Your task to perform on an android device: Show the shopping cart on bestbuy. Search for panasonic triple a on bestbuy, select the first entry, add it to the cart, then select checkout. Image 0: 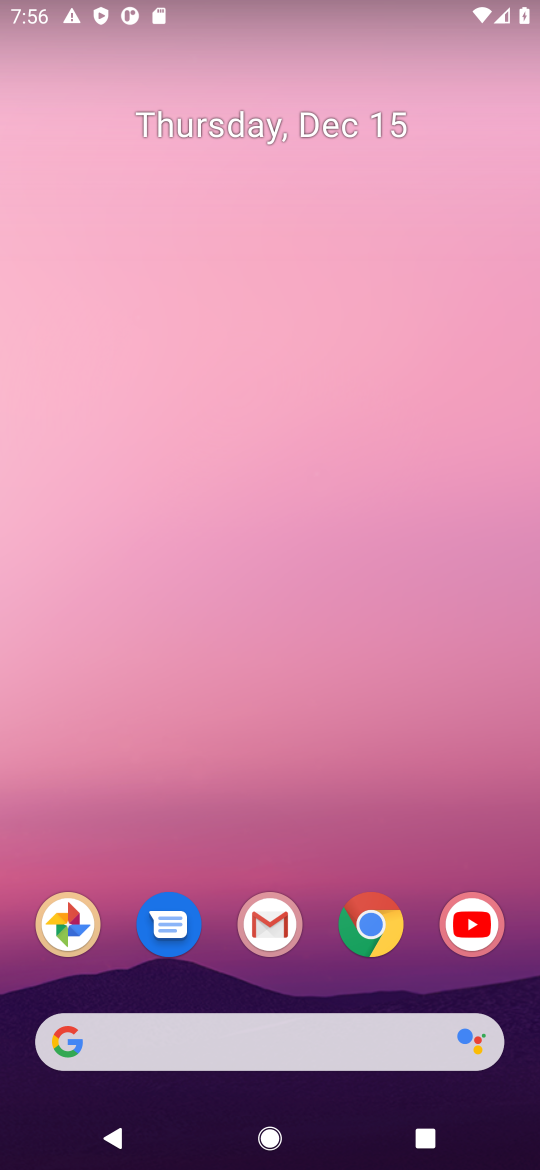
Step 0: click (376, 938)
Your task to perform on an android device: Show the shopping cart on bestbuy. Search for panasonic triple a on bestbuy, select the first entry, add it to the cart, then select checkout. Image 1: 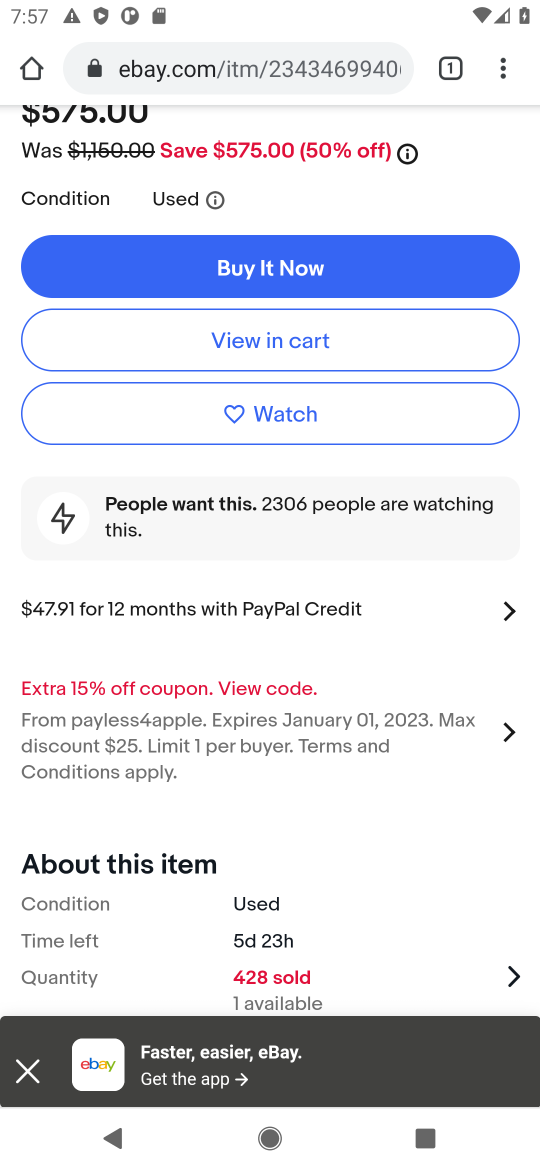
Step 1: click (318, 76)
Your task to perform on an android device: Show the shopping cart on bestbuy. Search for panasonic triple a on bestbuy, select the first entry, add it to the cart, then select checkout. Image 2: 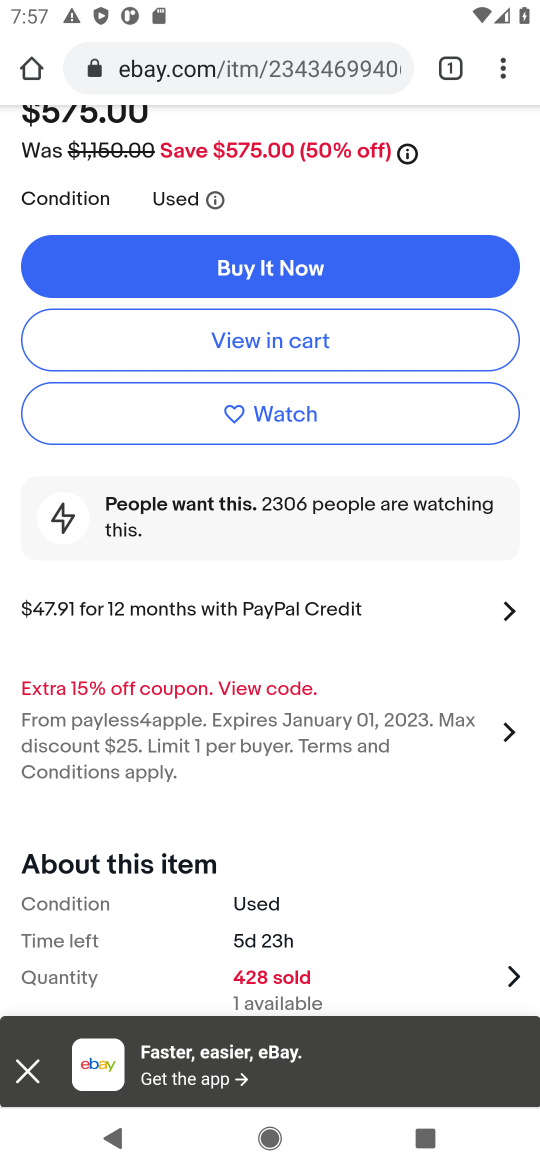
Step 2: click (318, 76)
Your task to perform on an android device: Show the shopping cart on bestbuy. Search for panasonic triple a on bestbuy, select the first entry, add it to the cart, then select checkout. Image 3: 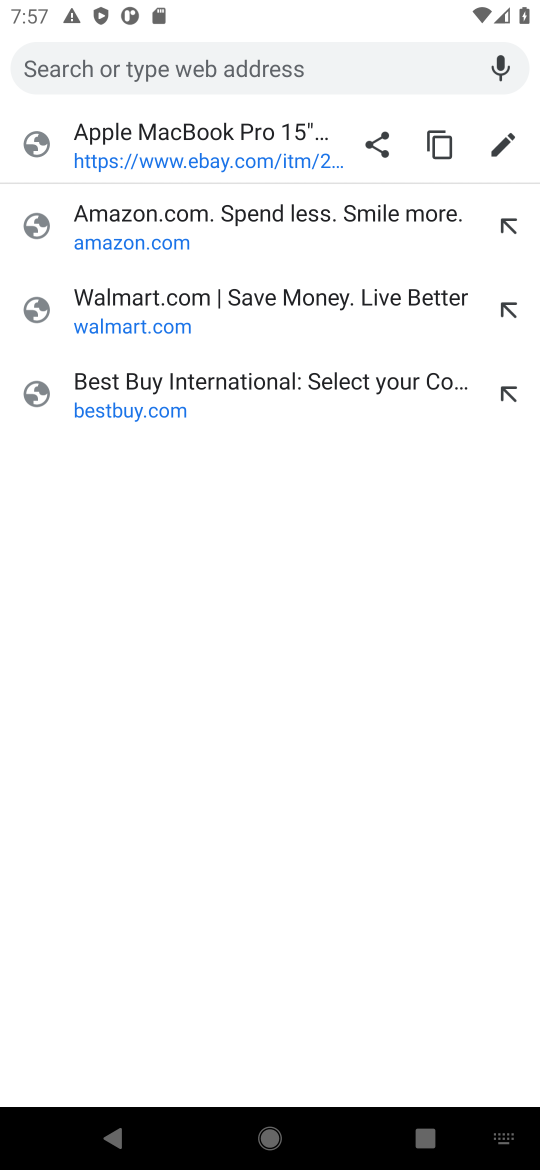
Step 3: click (174, 417)
Your task to perform on an android device: Show the shopping cart on bestbuy. Search for panasonic triple a on bestbuy, select the first entry, add it to the cart, then select checkout. Image 4: 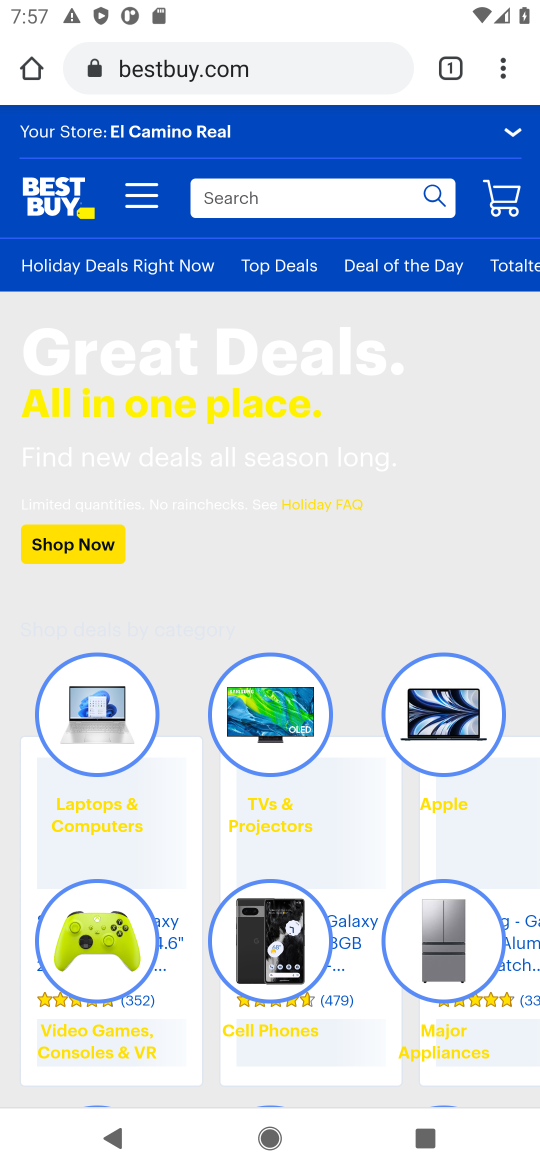
Step 4: click (494, 204)
Your task to perform on an android device: Show the shopping cart on bestbuy. Search for panasonic triple a on bestbuy, select the first entry, add it to the cart, then select checkout. Image 5: 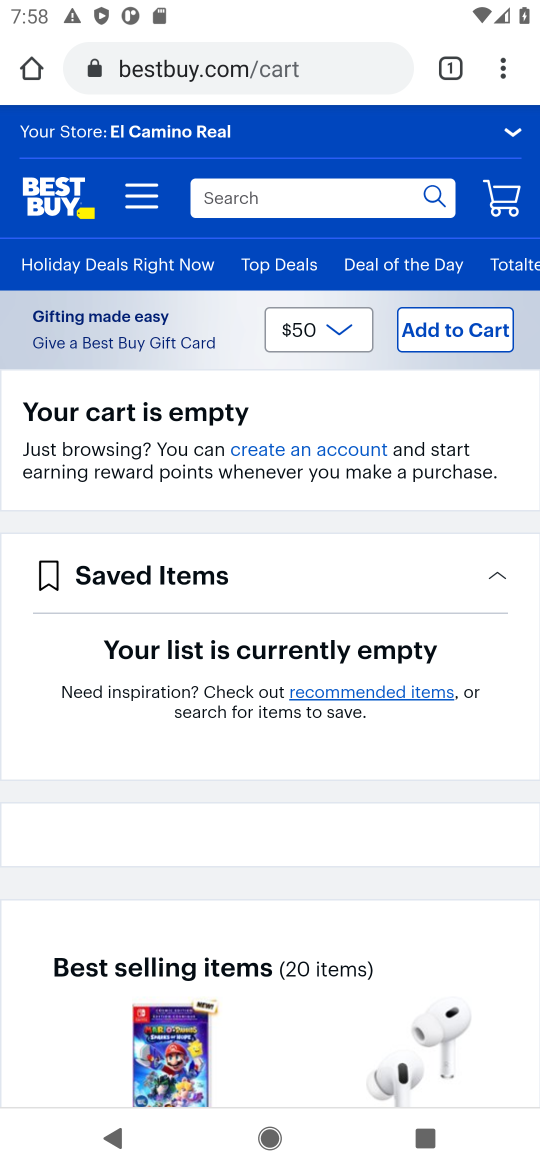
Step 5: click (292, 218)
Your task to perform on an android device: Show the shopping cart on bestbuy. Search for panasonic triple a on bestbuy, select the first entry, add it to the cart, then select checkout. Image 6: 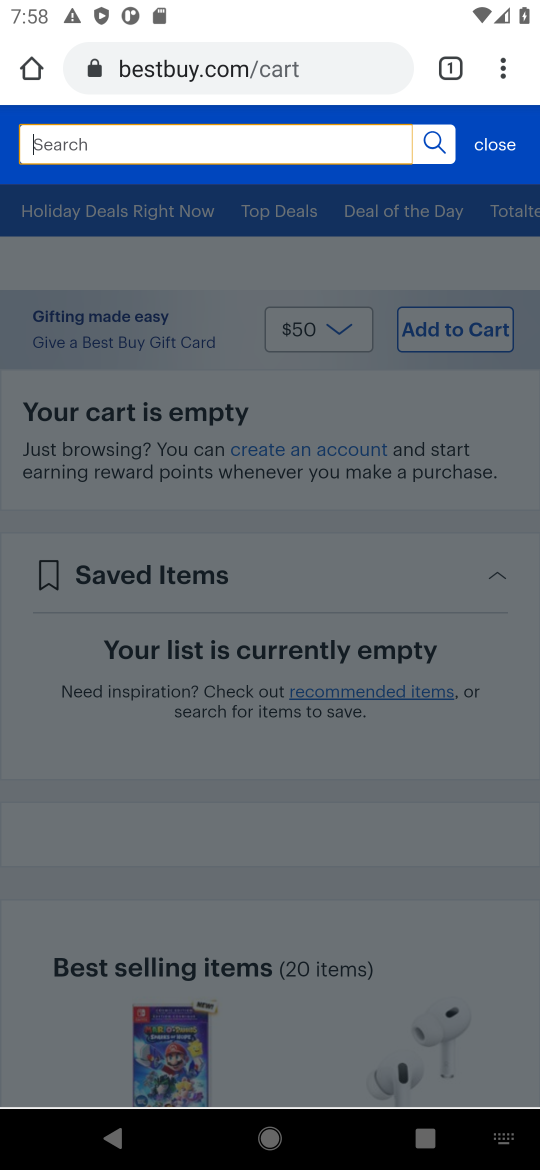
Step 6: click (289, 201)
Your task to perform on an android device: Show the shopping cart on bestbuy. Search for panasonic triple a on bestbuy, select the first entry, add it to the cart, then select checkout. Image 7: 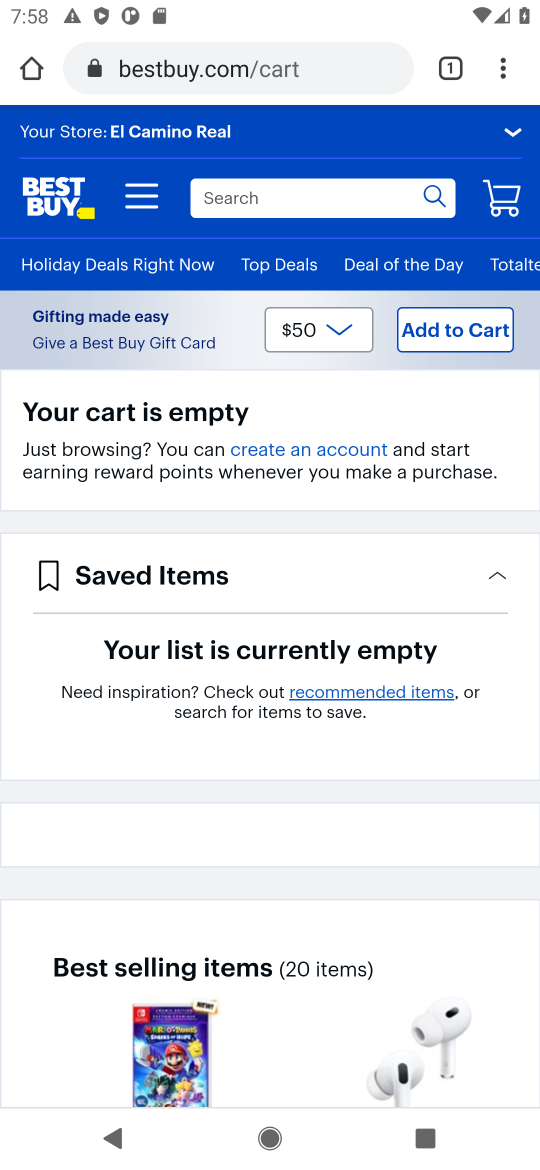
Step 7: click (267, 205)
Your task to perform on an android device: Show the shopping cart on bestbuy. Search for panasonic triple a on bestbuy, select the first entry, add it to the cart, then select checkout. Image 8: 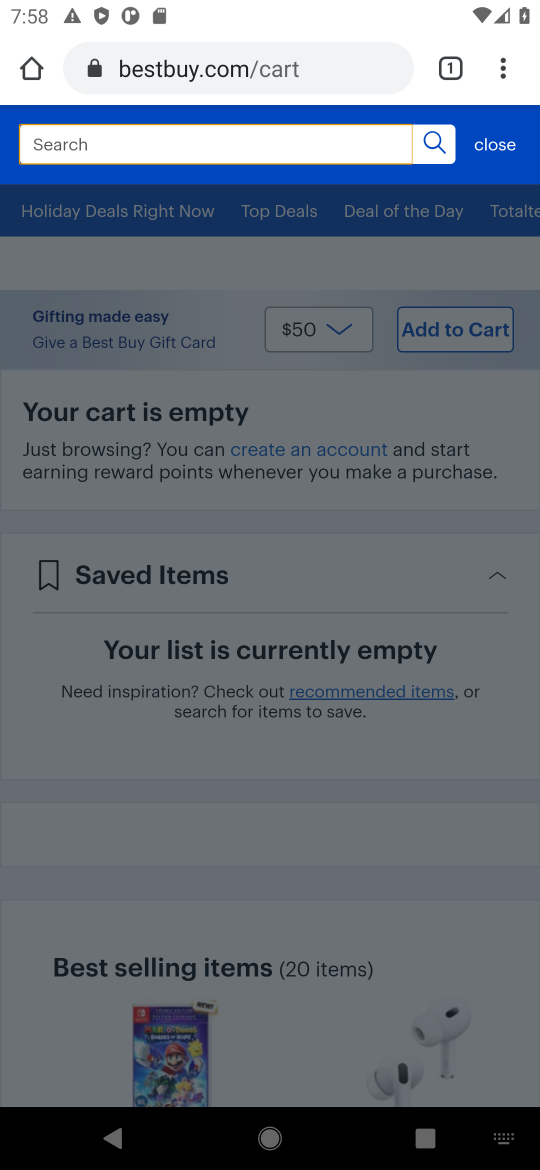
Step 8: type "panasonic triple a "
Your task to perform on an android device: Show the shopping cart on bestbuy. Search for panasonic triple a on bestbuy, select the first entry, add it to the cart, then select checkout. Image 9: 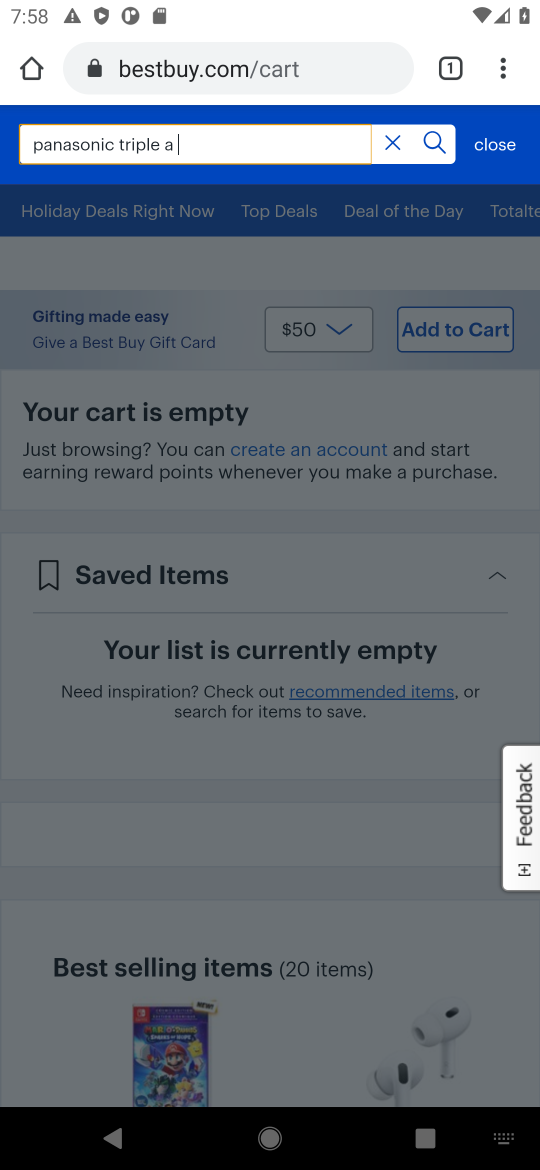
Step 9: click (434, 146)
Your task to perform on an android device: Show the shopping cart on bestbuy. Search for panasonic triple a on bestbuy, select the first entry, add it to the cart, then select checkout. Image 10: 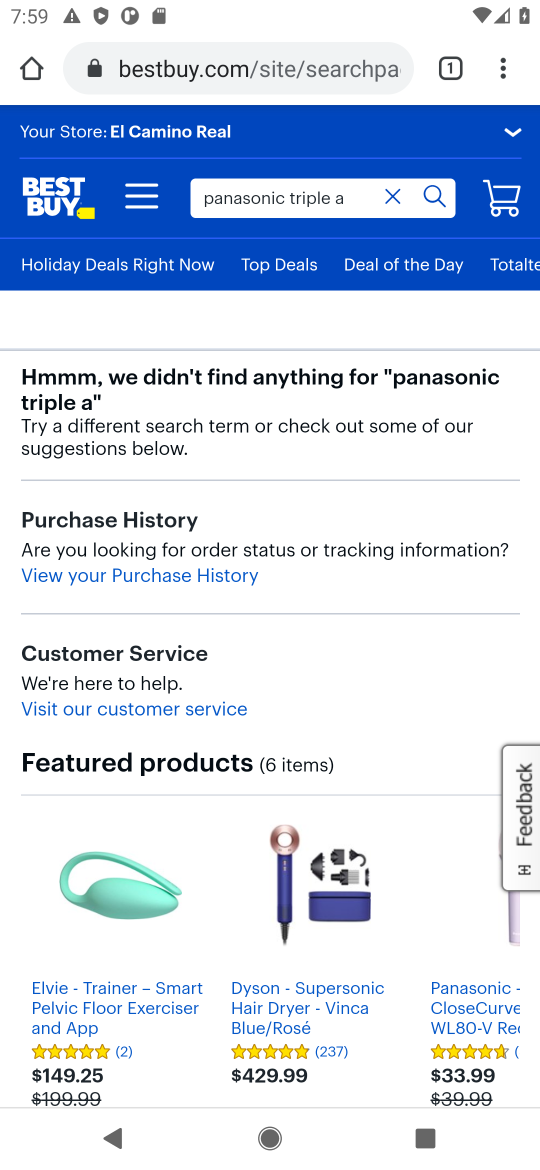
Step 10: task complete